Your task to perform on an android device: move an email to a new category in the gmail app Image 0: 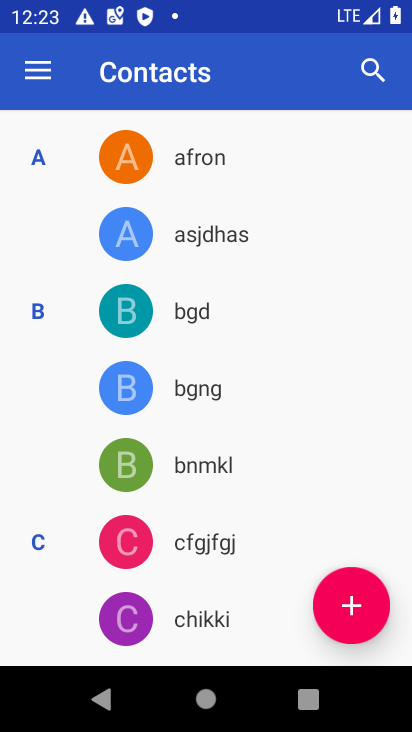
Step 0: press home button
Your task to perform on an android device: move an email to a new category in the gmail app Image 1: 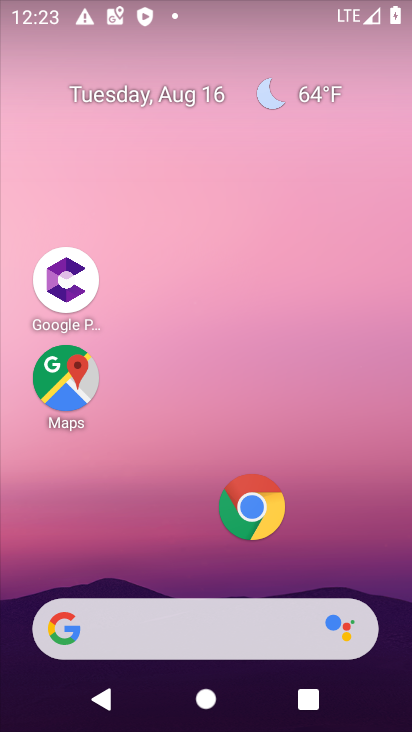
Step 1: drag from (154, 554) to (138, 109)
Your task to perform on an android device: move an email to a new category in the gmail app Image 2: 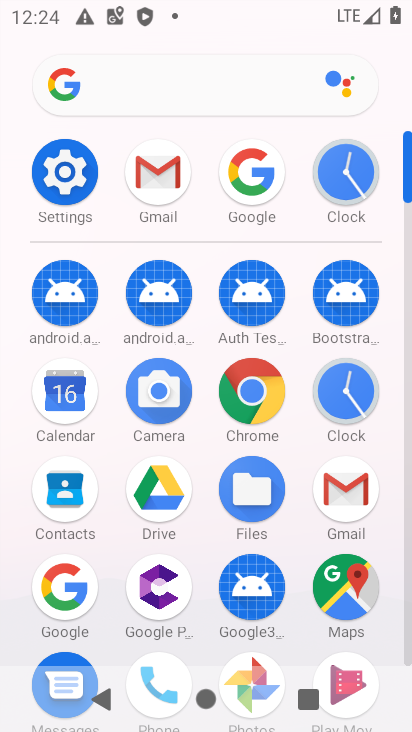
Step 2: click (158, 176)
Your task to perform on an android device: move an email to a new category in the gmail app Image 3: 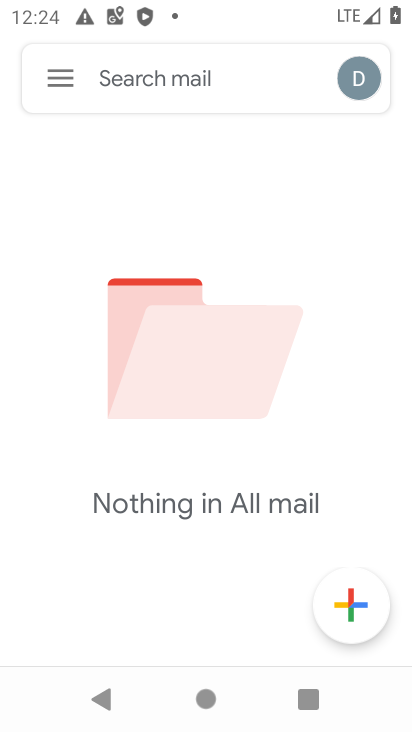
Step 3: click (57, 75)
Your task to perform on an android device: move an email to a new category in the gmail app Image 4: 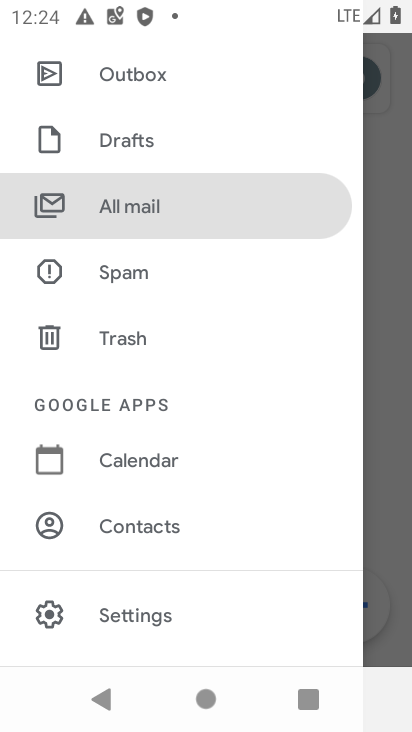
Step 4: click (128, 210)
Your task to perform on an android device: move an email to a new category in the gmail app Image 5: 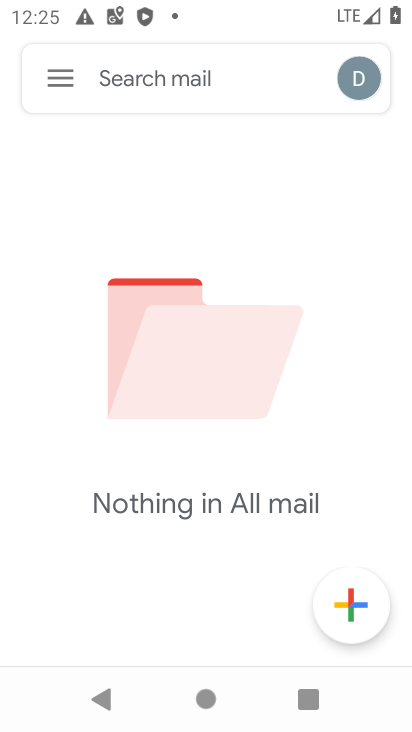
Step 5: task complete